Your task to perform on an android device: Open Google Maps Image 0: 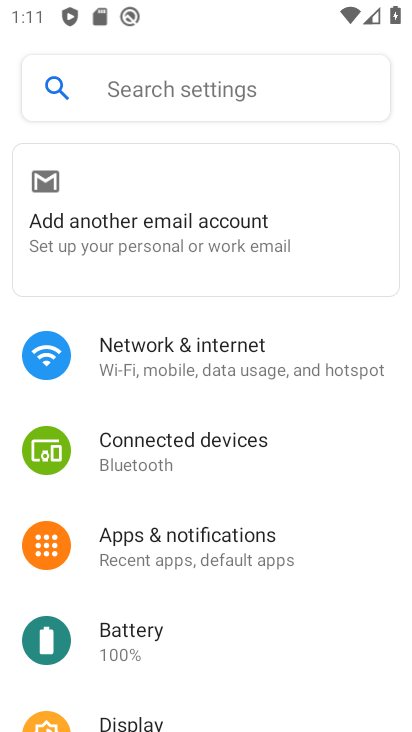
Step 0: press home button
Your task to perform on an android device: Open Google Maps Image 1: 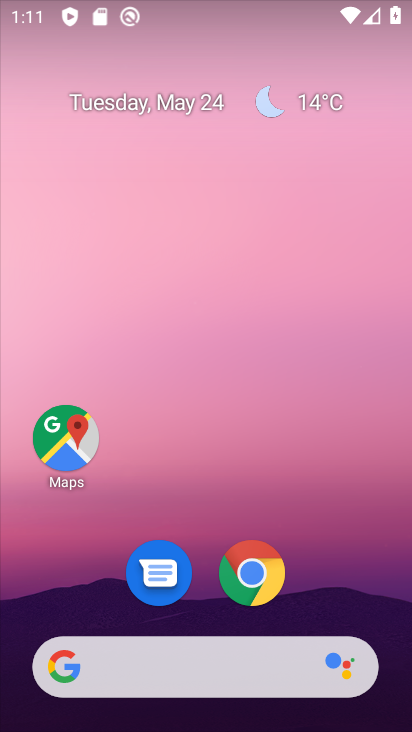
Step 1: click (88, 461)
Your task to perform on an android device: Open Google Maps Image 2: 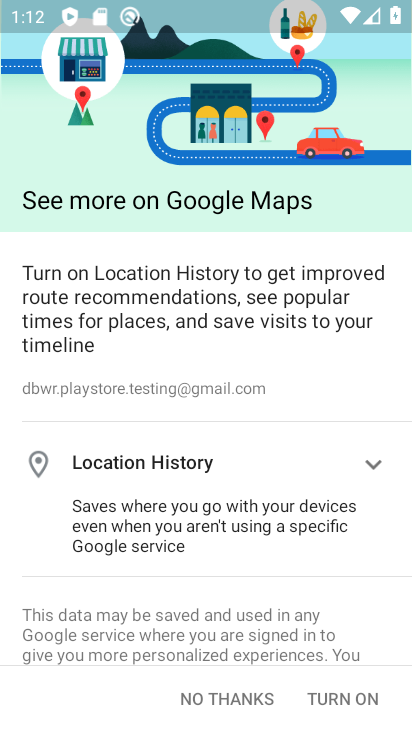
Step 2: click (345, 692)
Your task to perform on an android device: Open Google Maps Image 3: 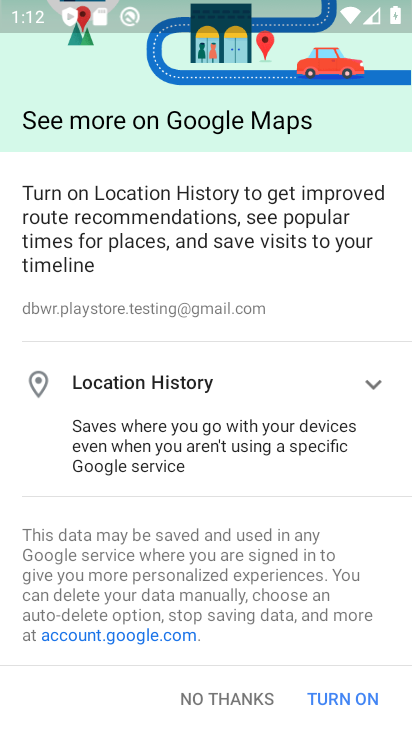
Step 3: click (345, 692)
Your task to perform on an android device: Open Google Maps Image 4: 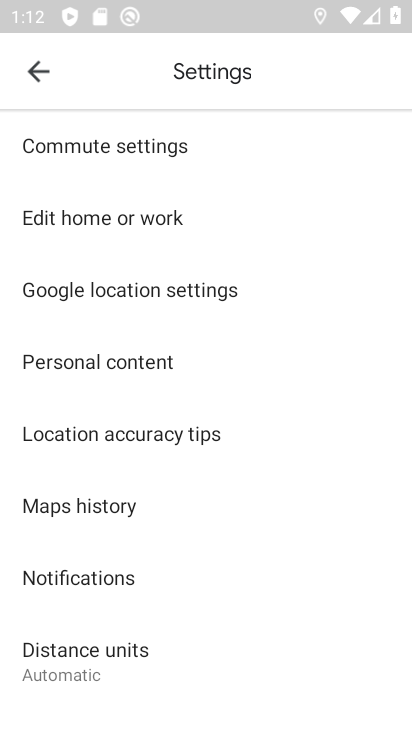
Step 4: click (41, 75)
Your task to perform on an android device: Open Google Maps Image 5: 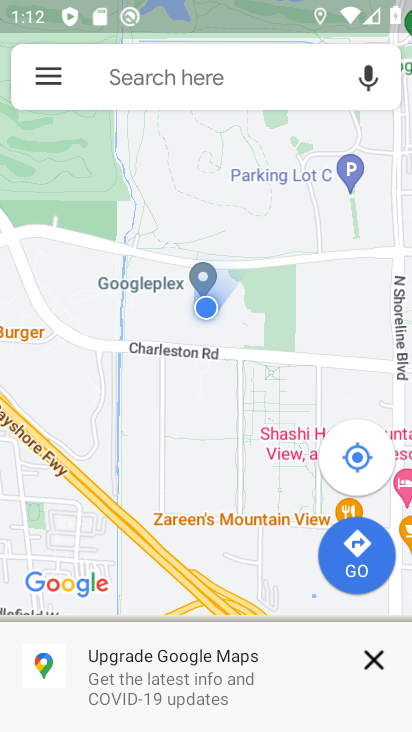
Step 5: task complete